Your task to perform on an android device: remove spam from my inbox in the gmail app Image 0: 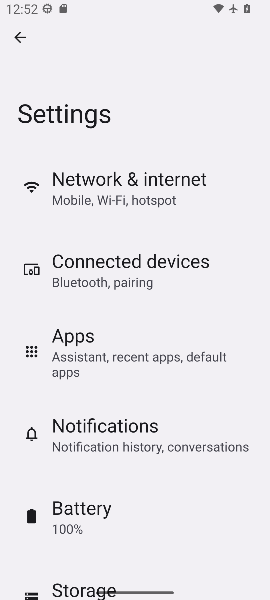
Step 0: press back button
Your task to perform on an android device: remove spam from my inbox in the gmail app Image 1: 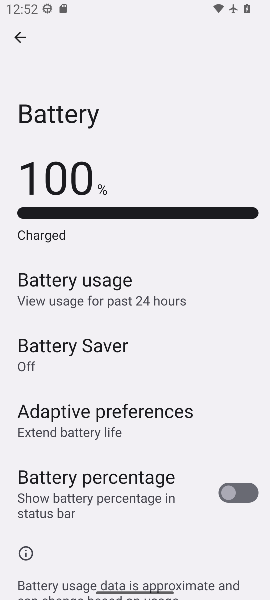
Step 1: press home button
Your task to perform on an android device: remove spam from my inbox in the gmail app Image 2: 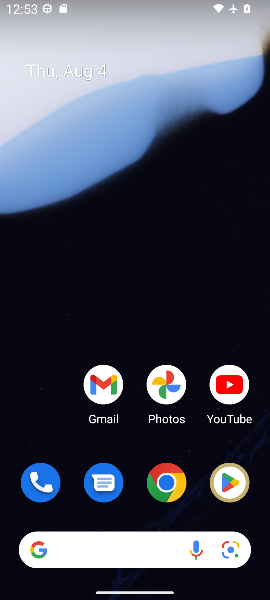
Step 2: drag from (132, 444) to (161, 165)
Your task to perform on an android device: remove spam from my inbox in the gmail app Image 3: 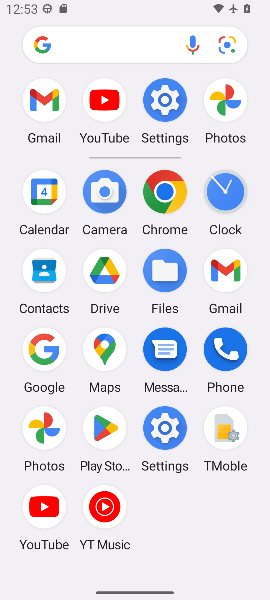
Step 3: click (213, 276)
Your task to perform on an android device: remove spam from my inbox in the gmail app Image 4: 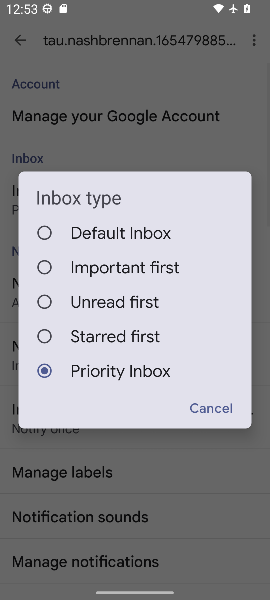
Step 4: click (205, 398)
Your task to perform on an android device: remove spam from my inbox in the gmail app Image 5: 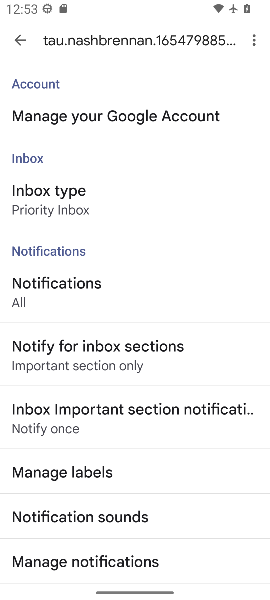
Step 5: click (21, 47)
Your task to perform on an android device: remove spam from my inbox in the gmail app Image 6: 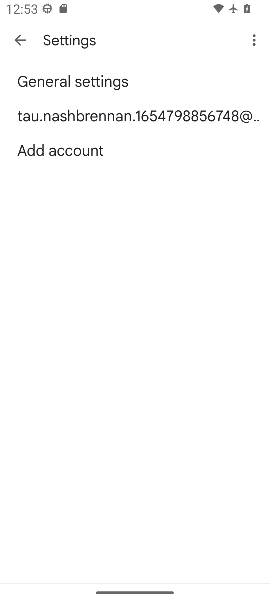
Step 6: click (21, 47)
Your task to perform on an android device: remove spam from my inbox in the gmail app Image 7: 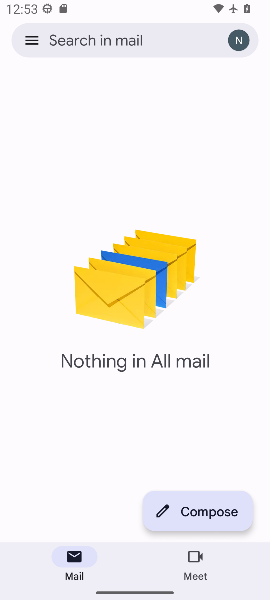
Step 7: click (26, 48)
Your task to perform on an android device: remove spam from my inbox in the gmail app Image 8: 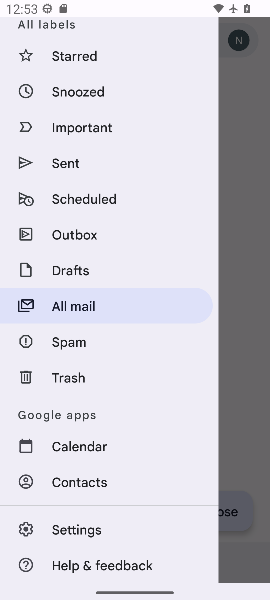
Step 8: click (88, 351)
Your task to perform on an android device: remove spam from my inbox in the gmail app Image 9: 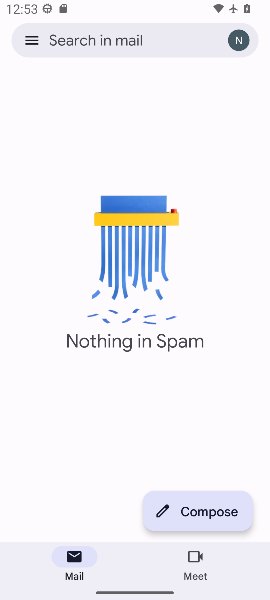
Step 9: task complete